Your task to perform on an android device: Search for sony triple a on target, select the first entry, and add it to the cart. Image 0: 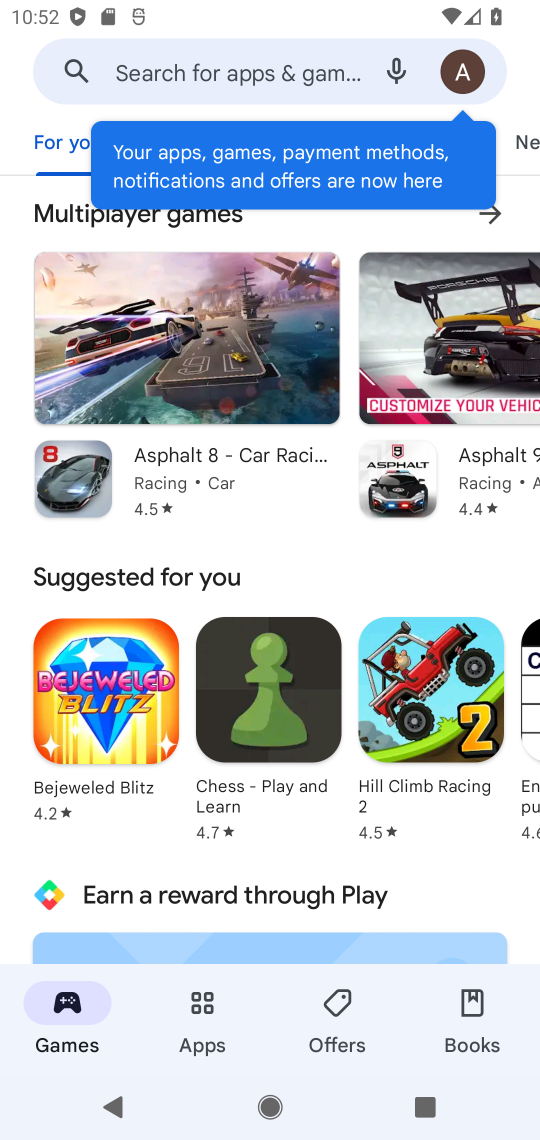
Step 0: press home button
Your task to perform on an android device: Search for sony triple a on target, select the first entry, and add it to the cart. Image 1: 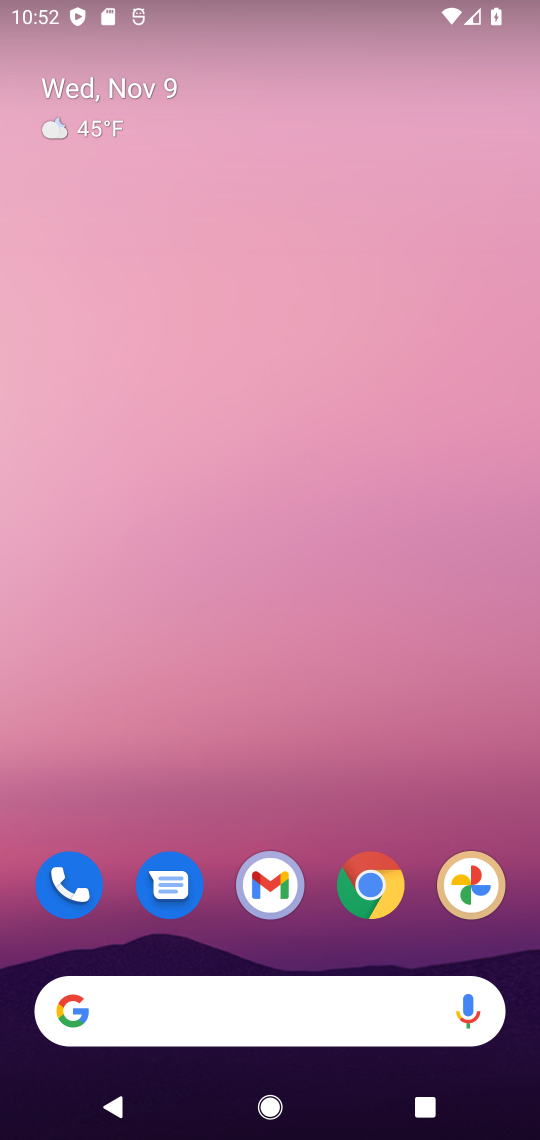
Step 1: click (376, 872)
Your task to perform on an android device: Search for sony triple a on target, select the first entry, and add it to the cart. Image 2: 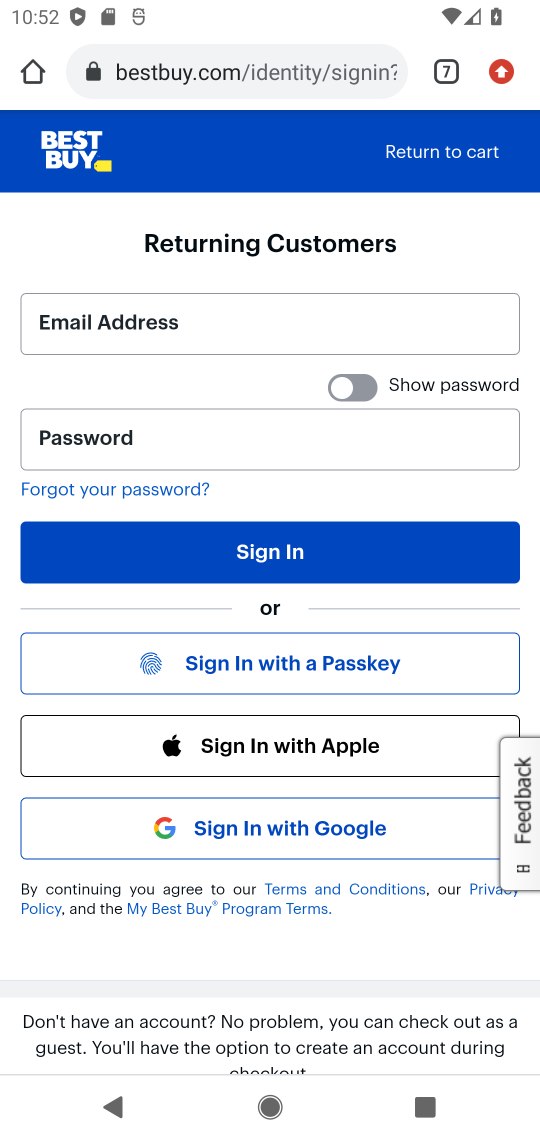
Step 2: click (455, 69)
Your task to perform on an android device: Search for sony triple a on target, select the first entry, and add it to the cart. Image 3: 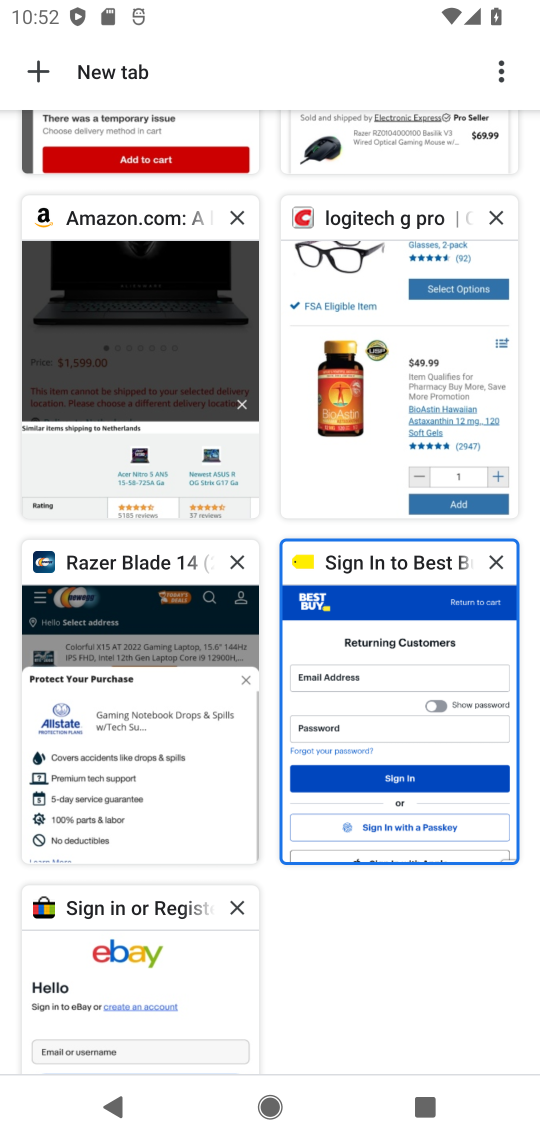
Step 3: click (223, 147)
Your task to perform on an android device: Search for sony triple a on target, select the first entry, and add it to the cart. Image 4: 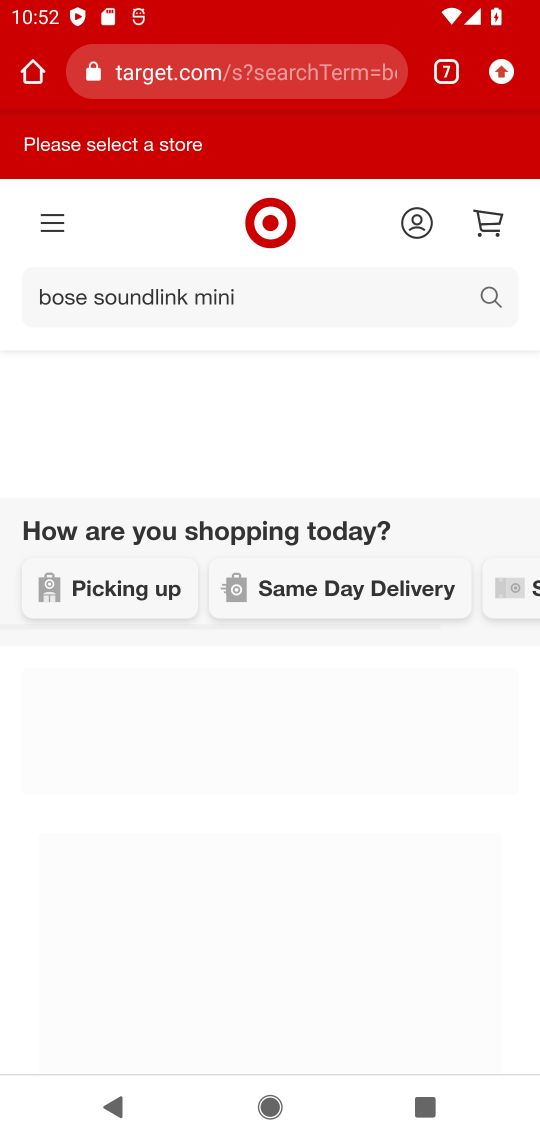
Step 4: click (242, 291)
Your task to perform on an android device: Search for sony triple a on target, select the first entry, and add it to the cart. Image 5: 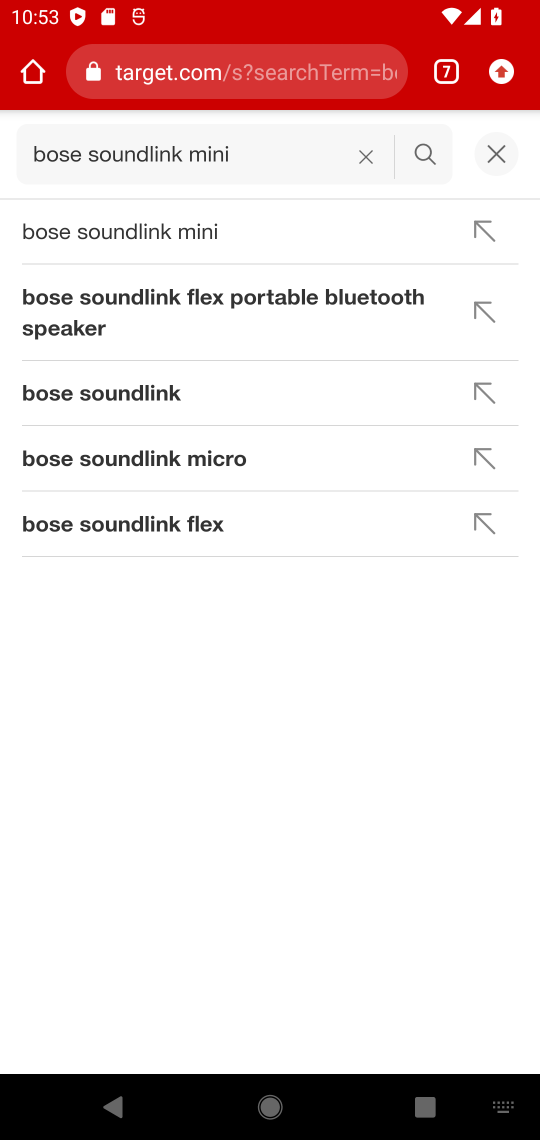
Step 5: click (359, 151)
Your task to perform on an android device: Search for sony triple a on target, select the first entry, and add it to the cart. Image 6: 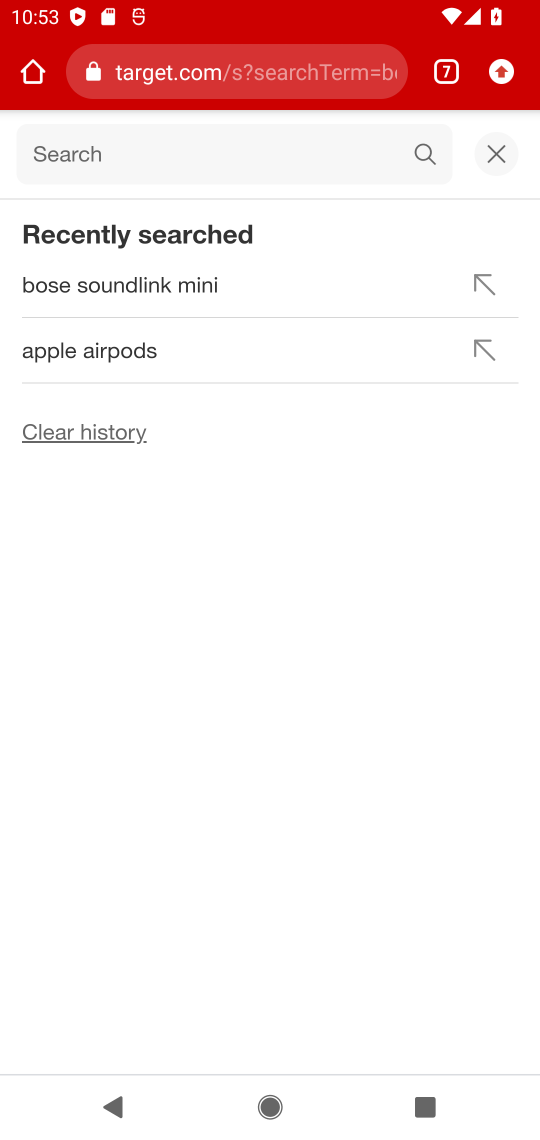
Step 6: click (268, 167)
Your task to perform on an android device: Search for sony triple a on target, select the first entry, and add it to the cart. Image 7: 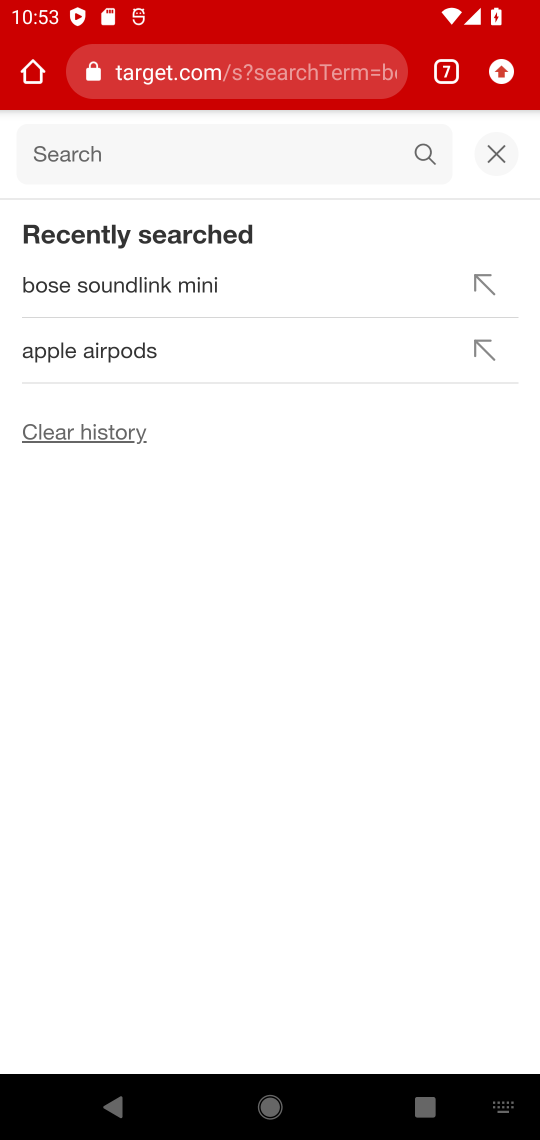
Step 7: type "sony triple a "
Your task to perform on an android device: Search for sony triple a on target, select the first entry, and add it to the cart. Image 8: 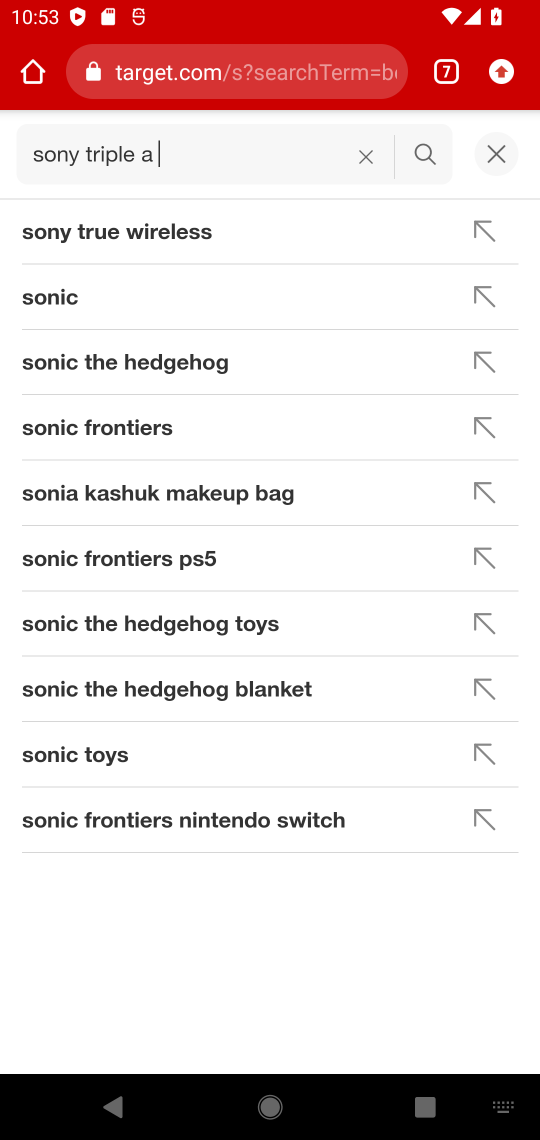
Step 8: click (418, 148)
Your task to perform on an android device: Search for sony triple a on target, select the first entry, and add it to the cart. Image 9: 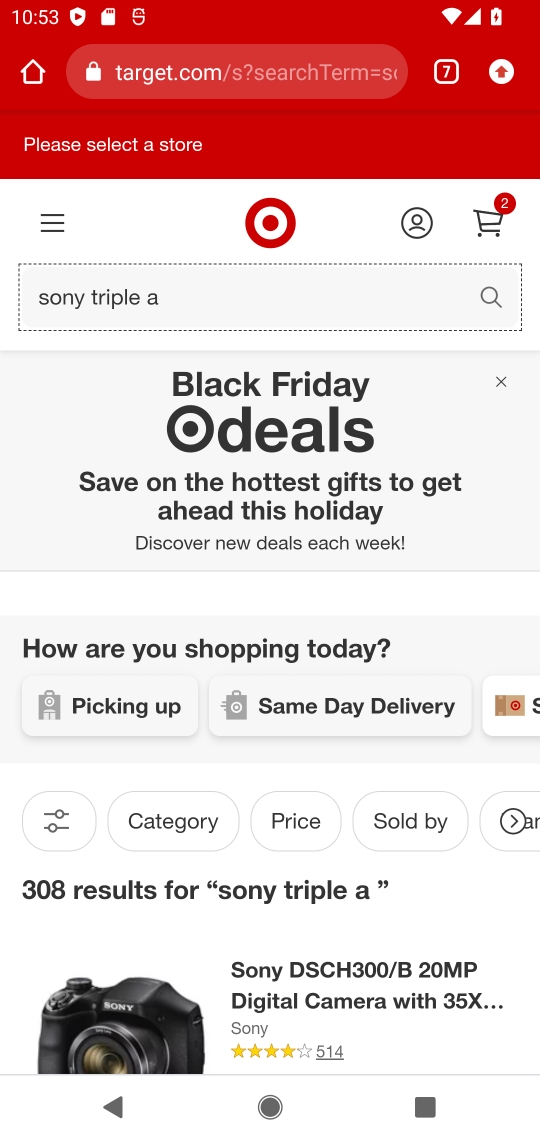
Step 9: drag from (321, 978) to (419, 246)
Your task to perform on an android device: Search for sony triple a on target, select the first entry, and add it to the cart. Image 10: 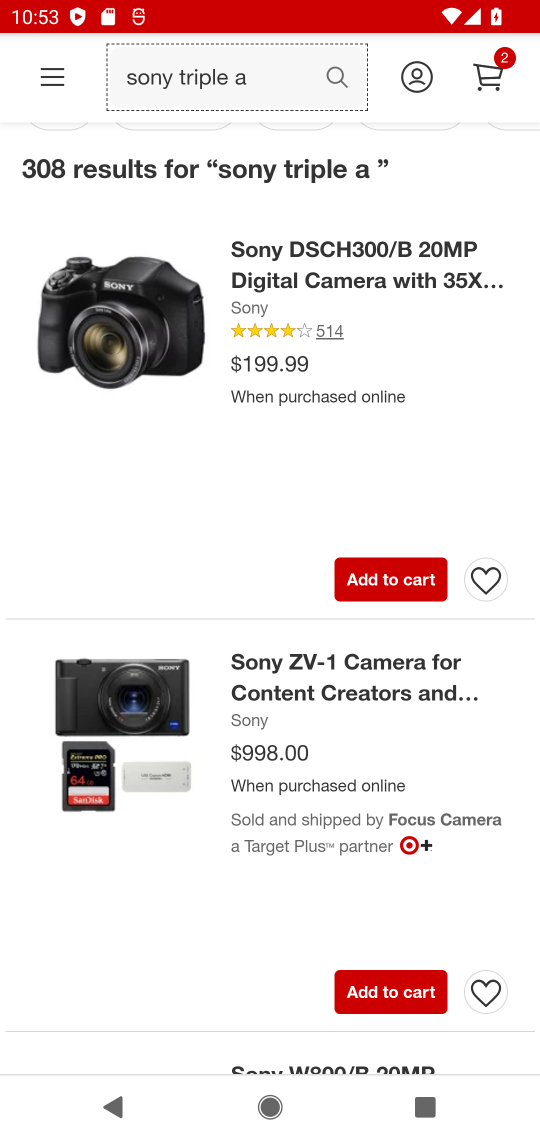
Step 10: drag from (358, 834) to (436, 281)
Your task to perform on an android device: Search for sony triple a on target, select the first entry, and add it to the cart. Image 11: 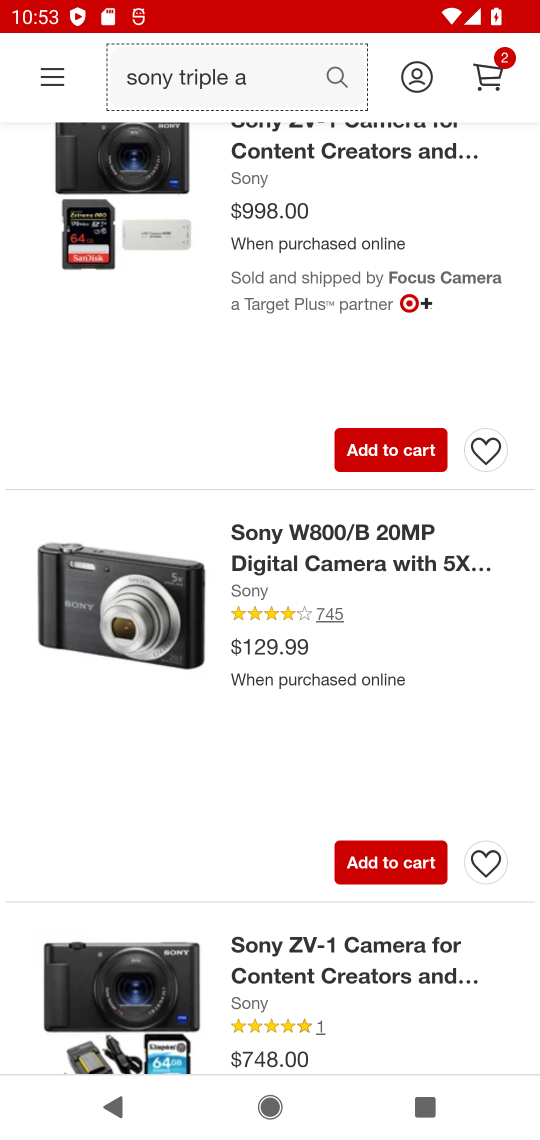
Step 11: drag from (408, 723) to (461, 253)
Your task to perform on an android device: Search for sony triple a on target, select the first entry, and add it to the cart. Image 12: 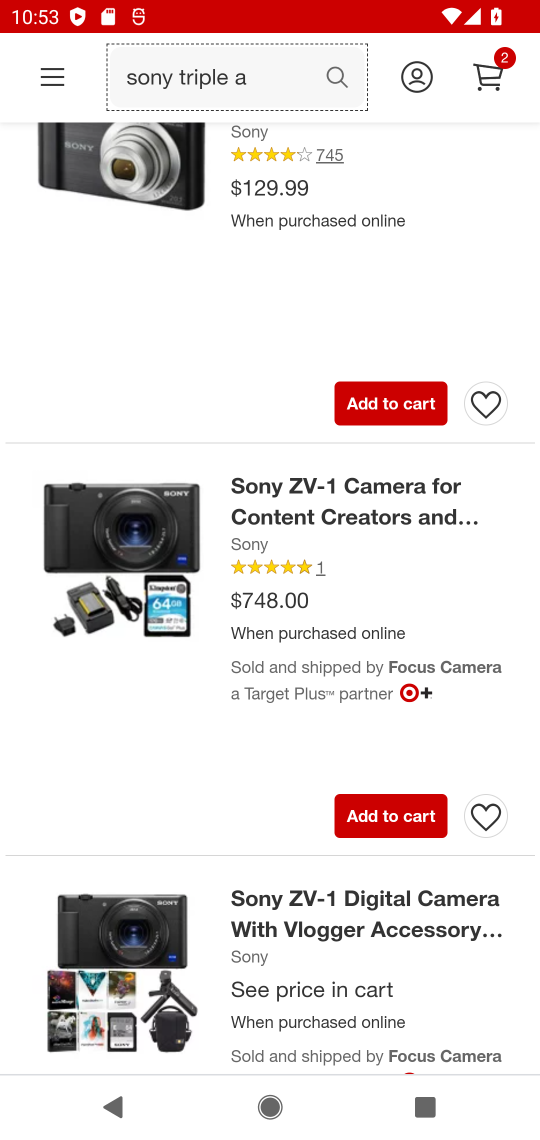
Step 12: drag from (222, 468) to (185, 964)
Your task to perform on an android device: Search for sony triple a on target, select the first entry, and add it to the cart. Image 13: 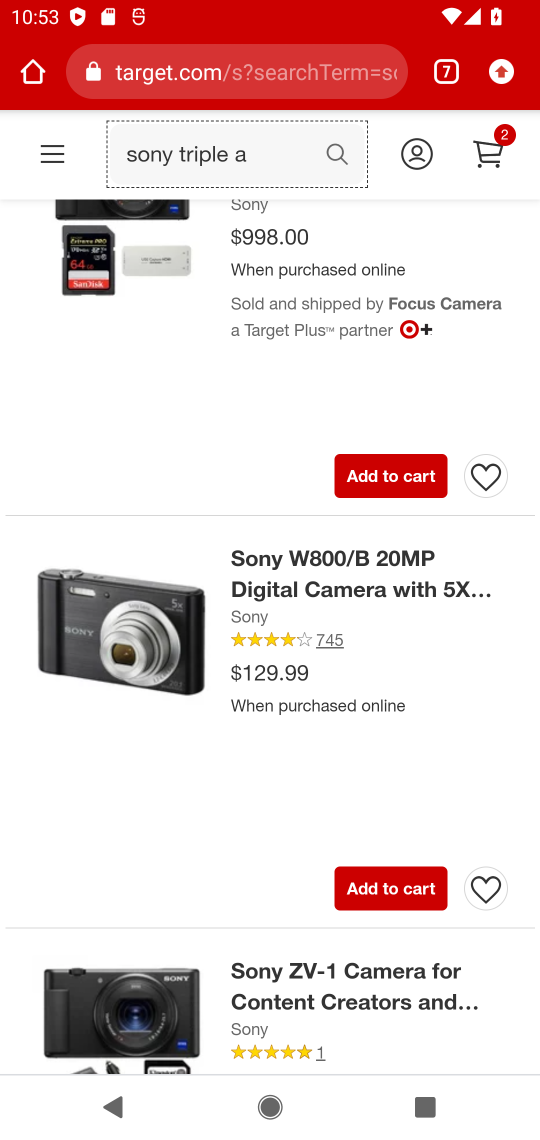
Step 13: drag from (282, 283) to (177, 793)
Your task to perform on an android device: Search for sony triple a on target, select the first entry, and add it to the cart. Image 14: 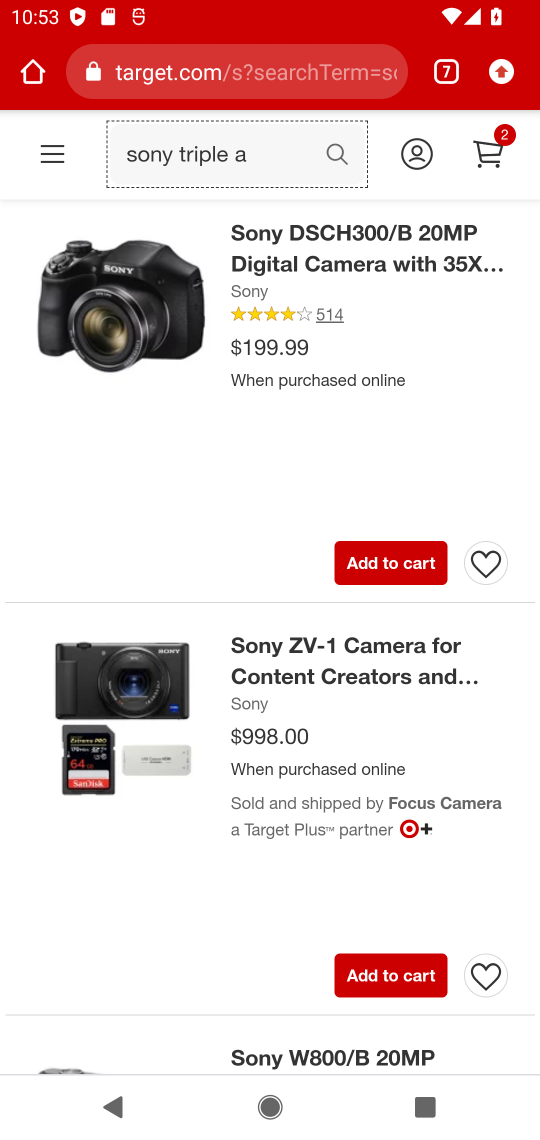
Step 14: drag from (329, 191) to (270, 728)
Your task to perform on an android device: Search for sony triple a on target, select the first entry, and add it to the cart. Image 15: 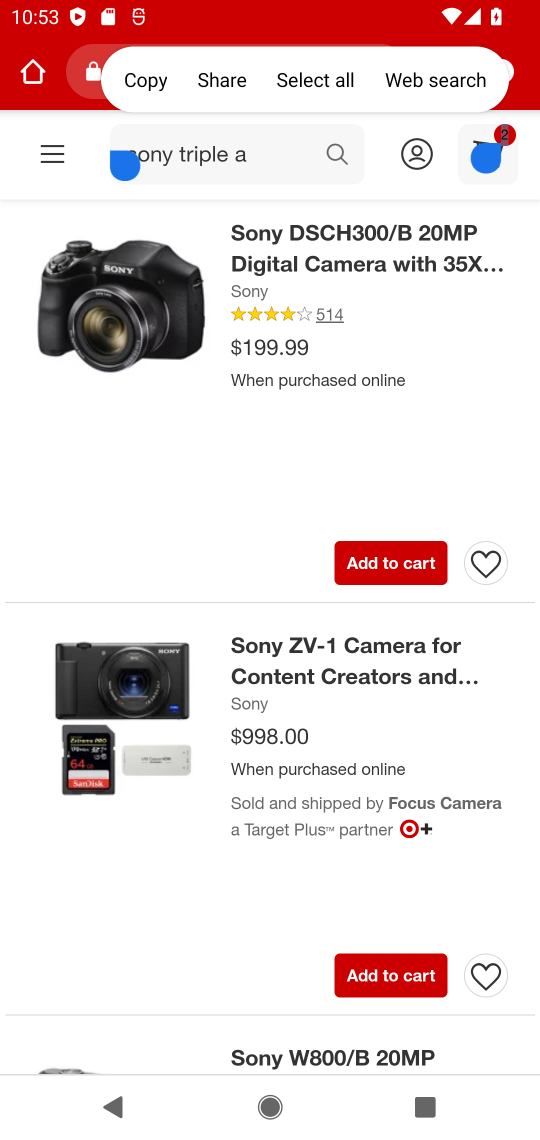
Step 15: drag from (392, 407) to (293, 1087)
Your task to perform on an android device: Search for sony triple a on target, select the first entry, and add it to the cart. Image 16: 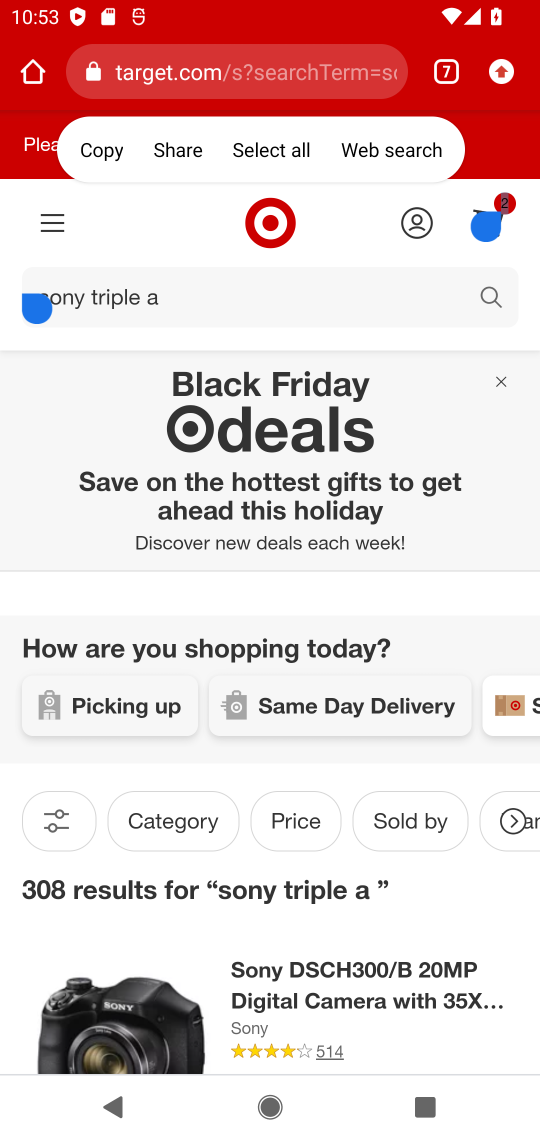
Step 16: drag from (360, 932) to (379, 731)
Your task to perform on an android device: Search for sony triple a on target, select the first entry, and add it to the cart. Image 17: 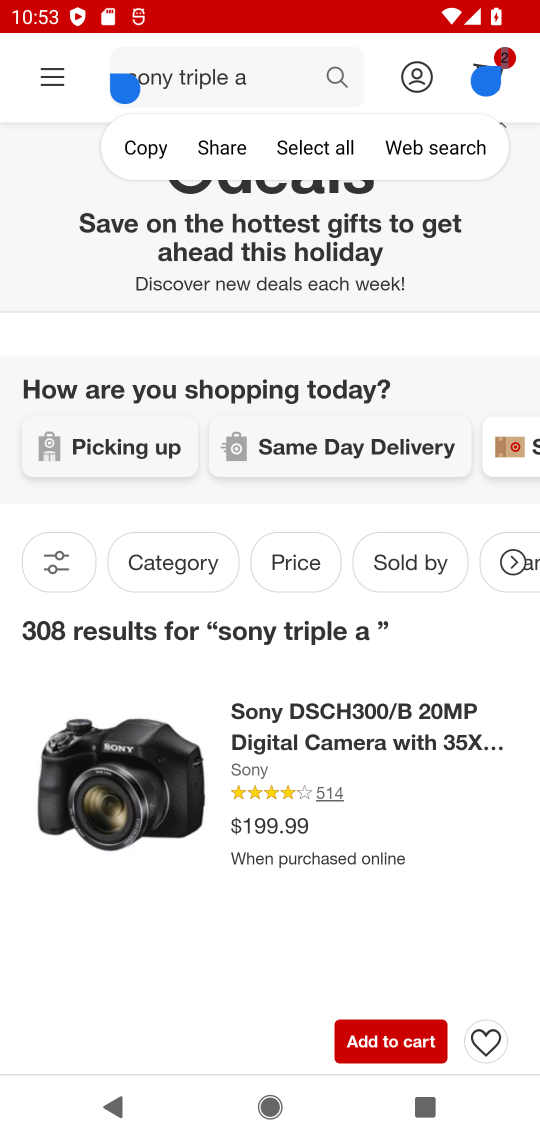
Step 17: click (402, 1022)
Your task to perform on an android device: Search for sony triple a on target, select the first entry, and add it to the cart. Image 18: 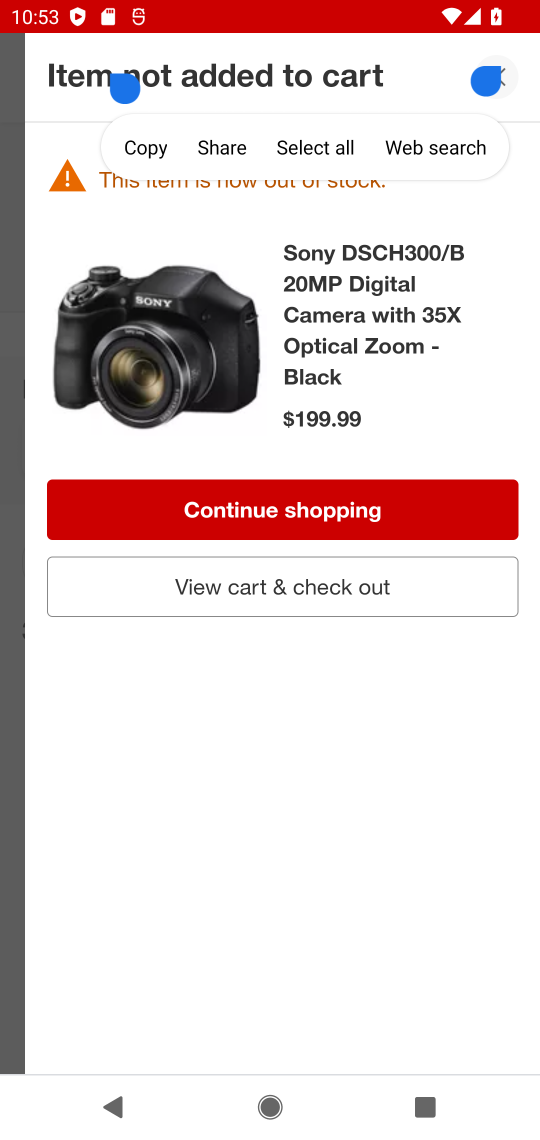
Step 18: task complete